Your task to perform on an android device: Open display settings Image 0: 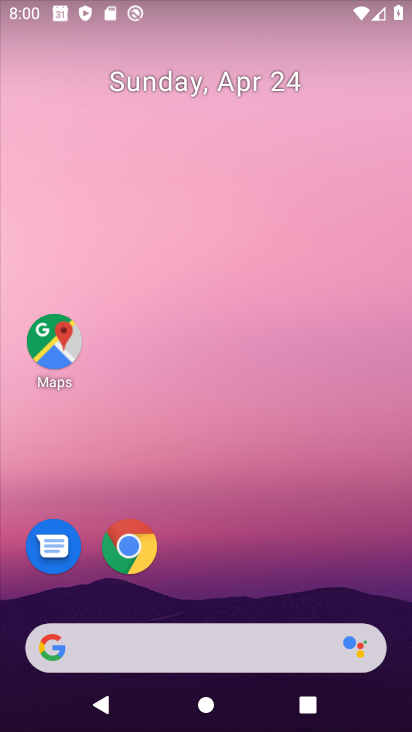
Step 0: click (320, 108)
Your task to perform on an android device: Open display settings Image 1: 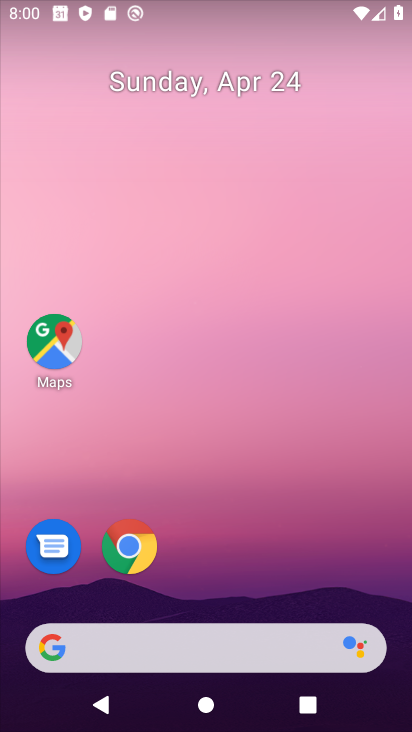
Step 1: drag from (217, 596) to (281, 25)
Your task to perform on an android device: Open display settings Image 2: 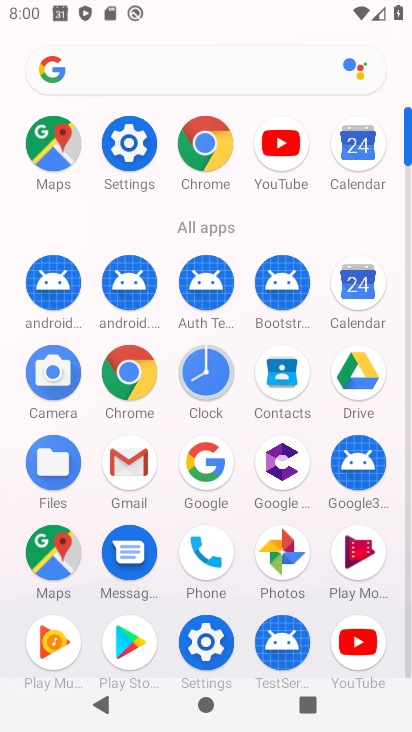
Step 2: click (116, 167)
Your task to perform on an android device: Open display settings Image 3: 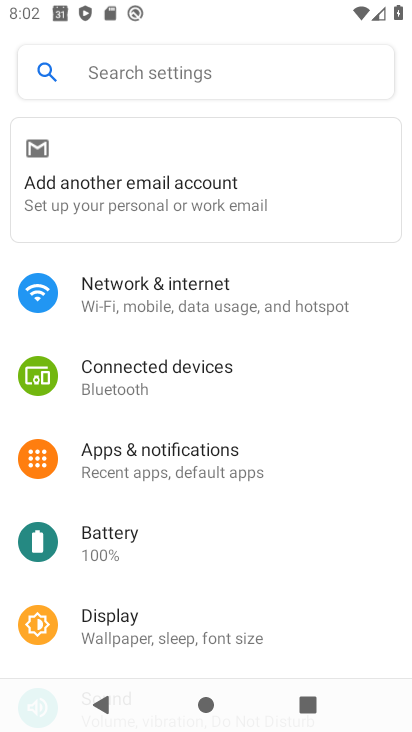
Step 3: task complete